Your task to perform on an android device: Turn off the flashlight Image 0: 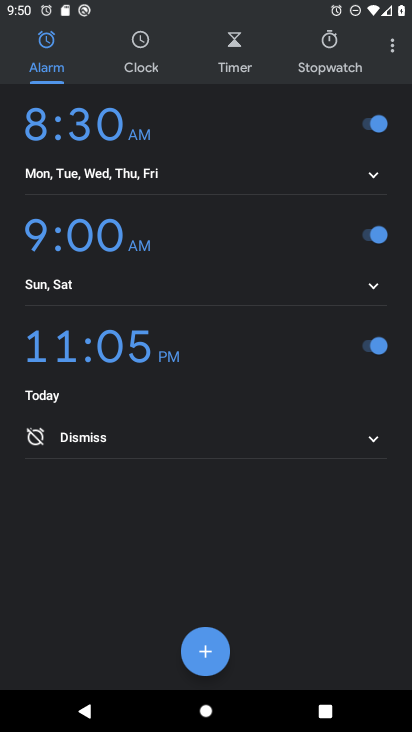
Step 0: press home button
Your task to perform on an android device: Turn off the flashlight Image 1: 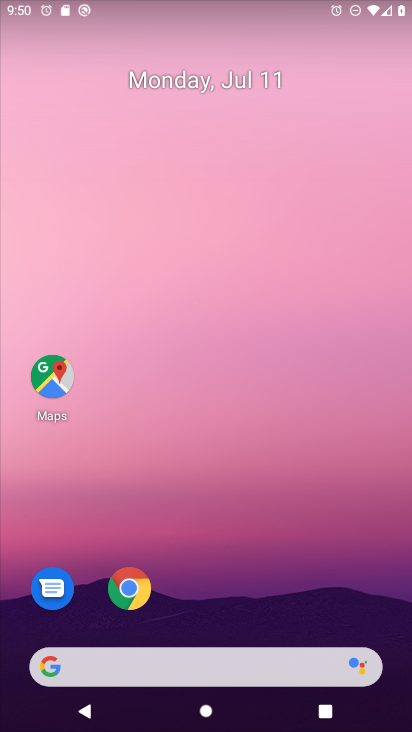
Step 1: task complete